Your task to perform on an android device: turn on the 12-hour format for clock Image 0: 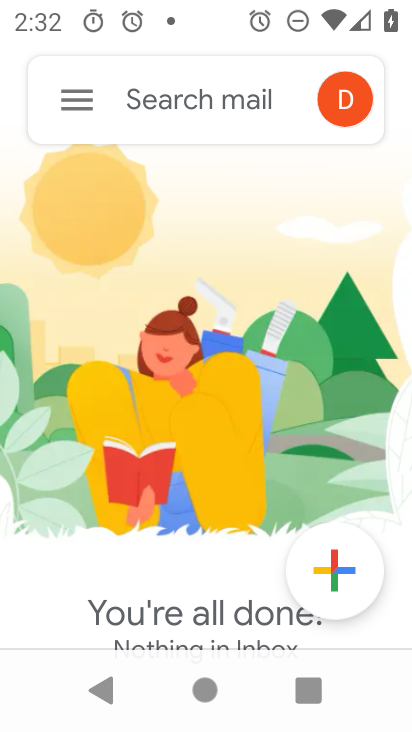
Step 0: press home button
Your task to perform on an android device: turn on the 12-hour format for clock Image 1: 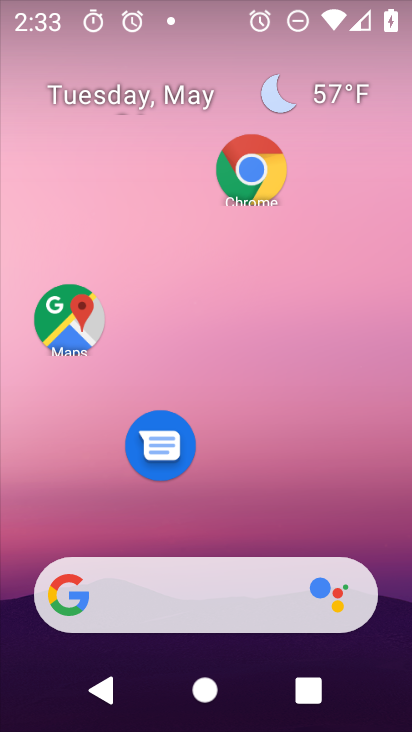
Step 1: drag from (235, 713) to (189, 180)
Your task to perform on an android device: turn on the 12-hour format for clock Image 2: 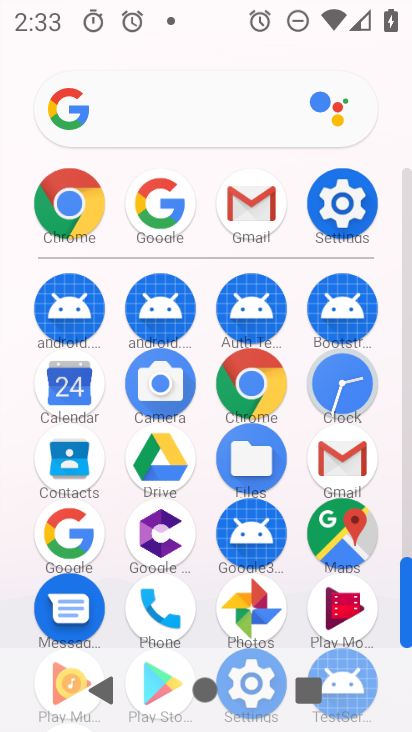
Step 2: click (332, 381)
Your task to perform on an android device: turn on the 12-hour format for clock Image 3: 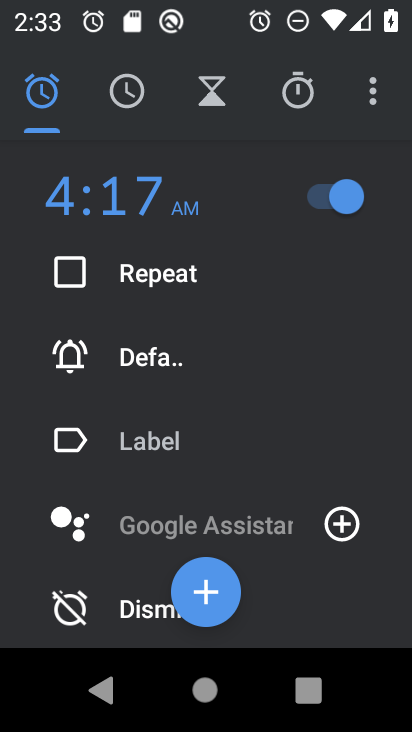
Step 3: click (376, 102)
Your task to perform on an android device: turn on the 12-hour format for clock Image 4: 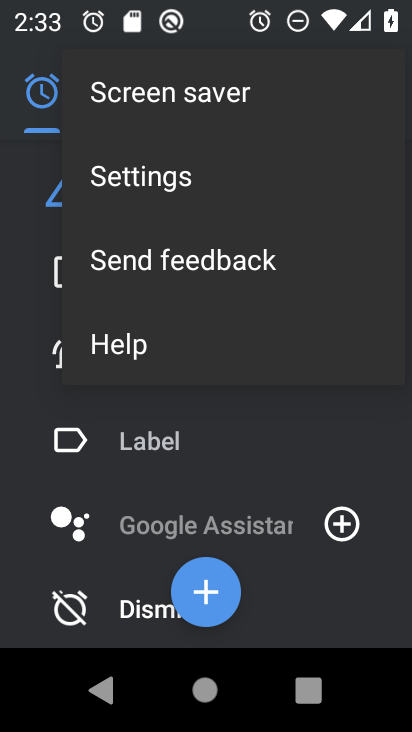
Step 4: click (156, 181)
Your task to perform on an android device: turn on the 12-hour format for clock Image 5: 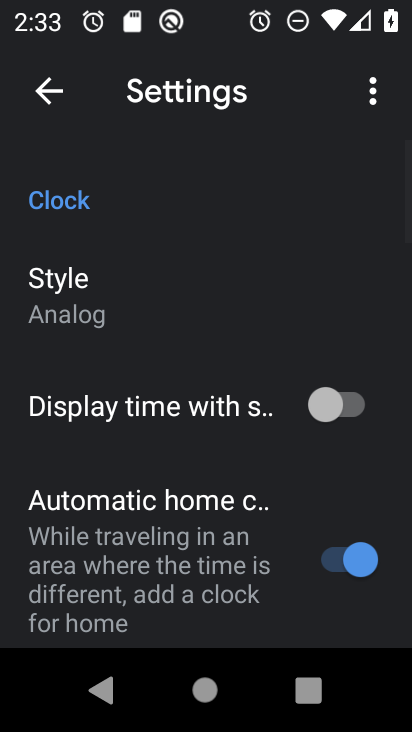
Step 5: drag from (166, 575) to (140, 245)
Your task to perform on an android device: turn on the 12-hour format for clock Image 6: 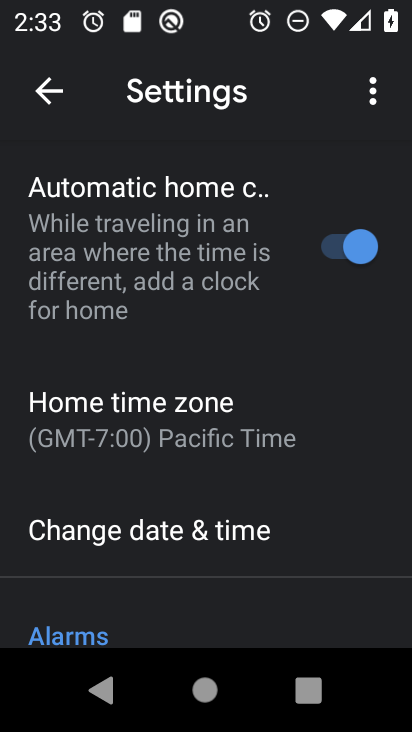
Step 6: click (194, 532)
Your task to perform on an android device: turn on the 12-hour format for clock Image 7: 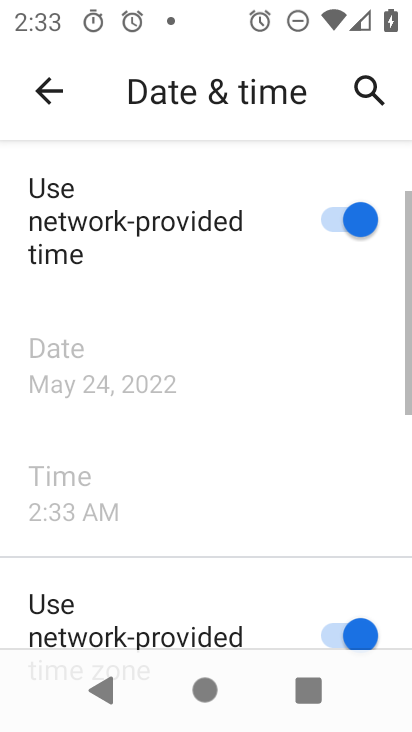
Step 7: task complete